Your task to perform on an android device: change alarm snooze length Image 0: 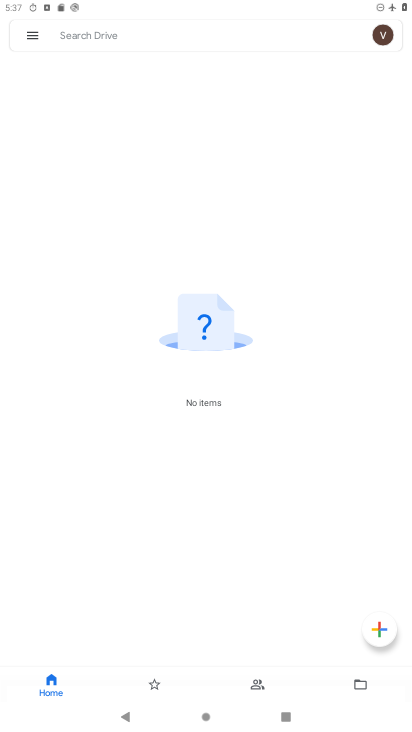
Step 0: press home button
Your task to perform on an android device: change alarm snooze length Image 1: 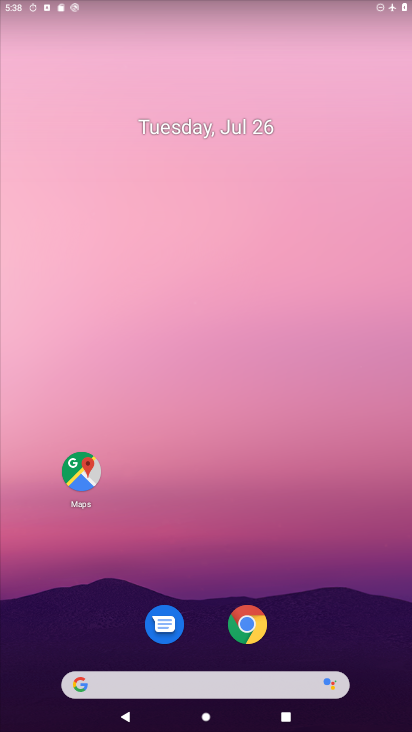
Step 1: drag from (276, 621) to (332, 9)
Your task to perform on an android device: change alarm snooze length Image 2: 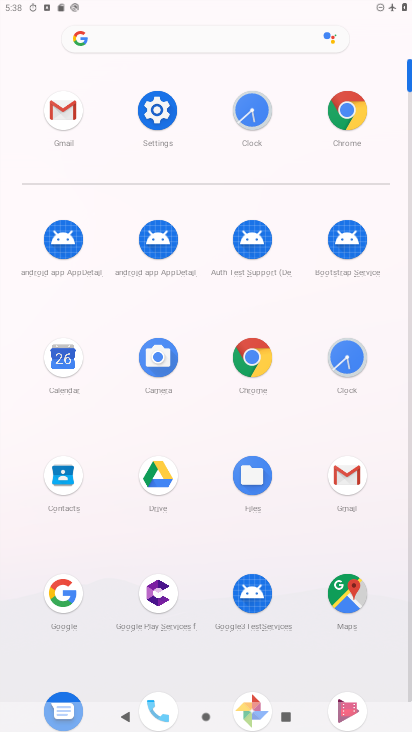
Step 2: click (341, 356)
Your task to perform on an android device: change alarm snooze length Image 3: 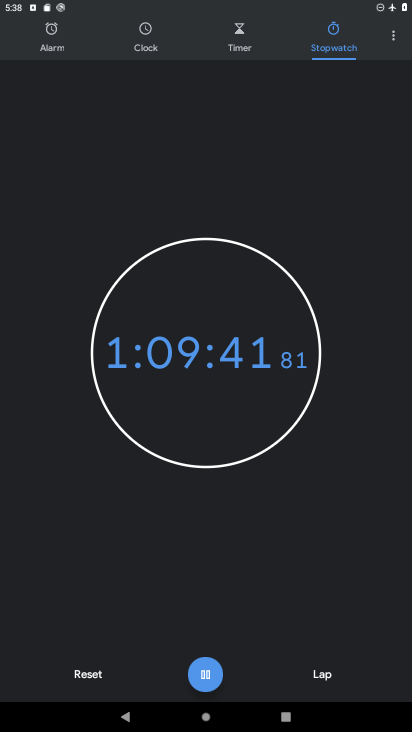
Step 3: click (391, 37)
Your task to perform on an android device: change alarm snooze length Image 4: 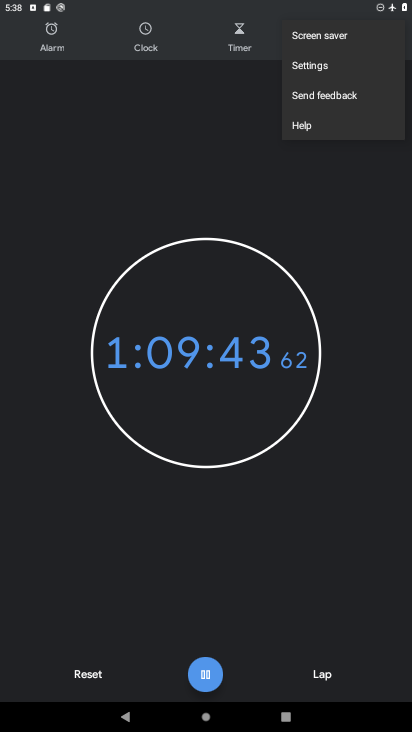
Step 4: click (314, 71)
Your task to perform on an android device: change alarm snooze length Image 5: 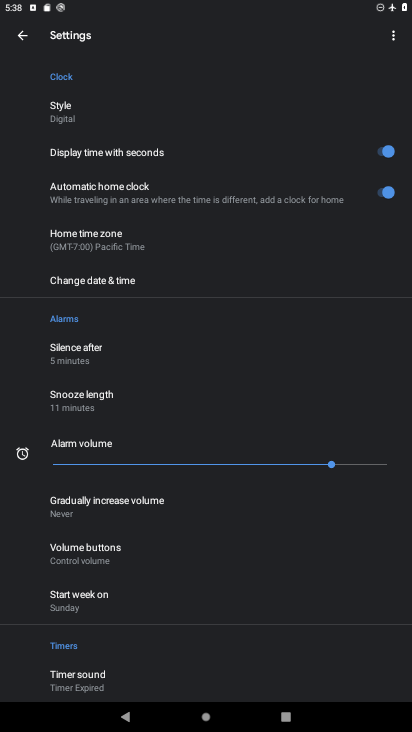
Step 5: click (75, 392)
Your task to perform on an android device: change alarm snooze length Image 6: 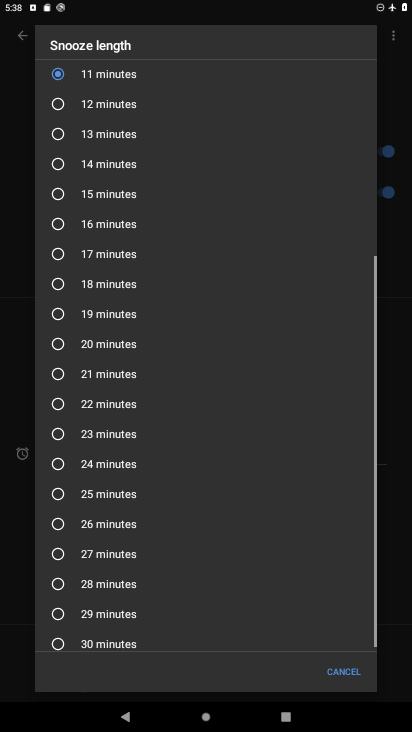
Step 6: click (57, 112)
Your task to perform on an android device: change alarm snooze length Image 7: 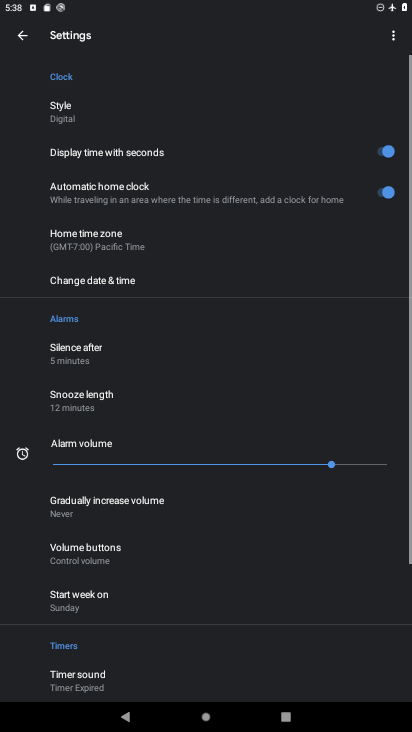
Step 7: task complete